Your task to perform on an android device: Go to notification settings Image 0: 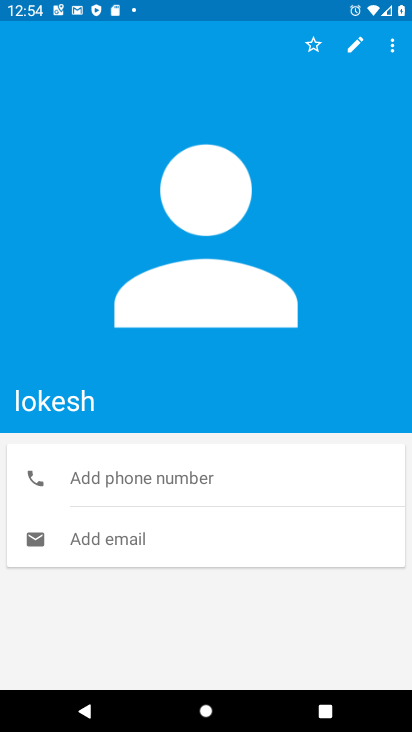
Step 0: press home button
Your task to perform on an android device: Go to notification settings Image 1: 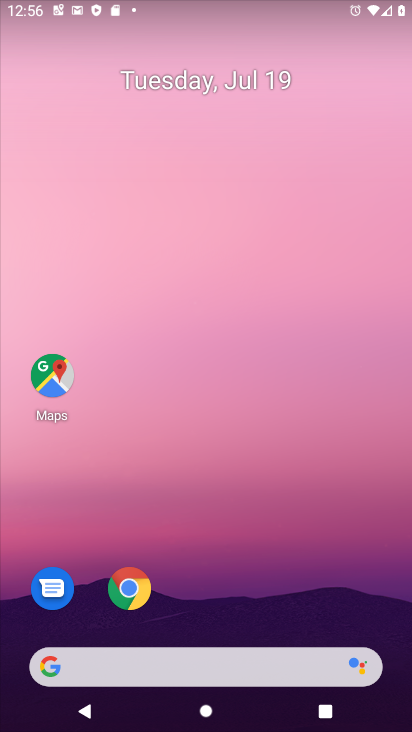
Step 1: drag from (339, 608) to (115, 61)
Your task to perform on an android device: Go to notification settings Image 2: 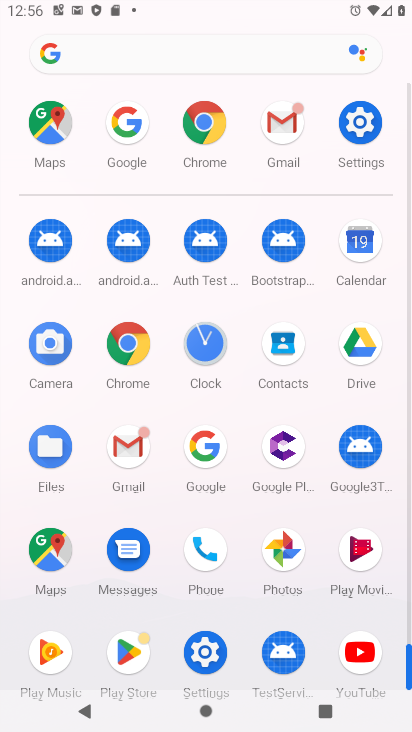
Step 2: click (201, 652)
Your task to perform on an android device: Go to notification settings Image 3: 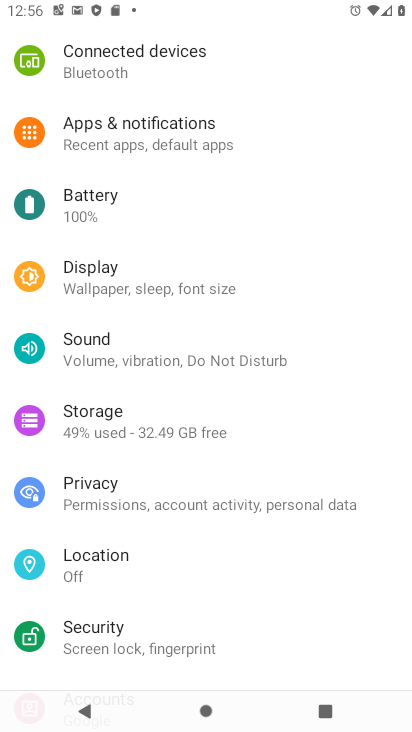
Step 3: click (147, 138)
Your task to perform on an android device: Go to notification settings Image 4: 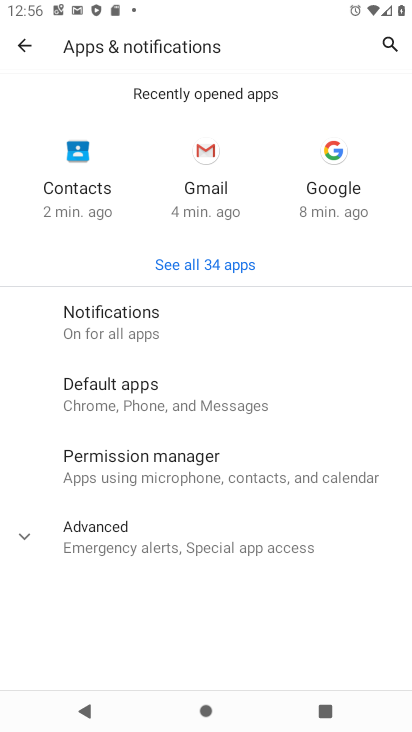
Step 4: click (166, 314)
Your task to perform on an android device: Go to notification settings Image 5: 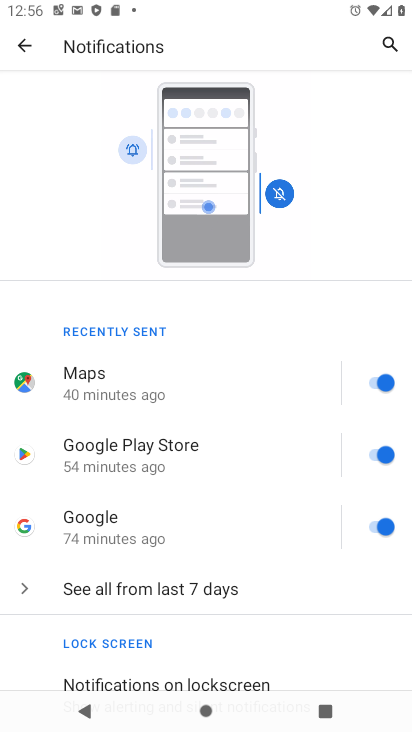
Step 5: task complete